Your task to perform on an android device: Go to Reddit.com Image 0: 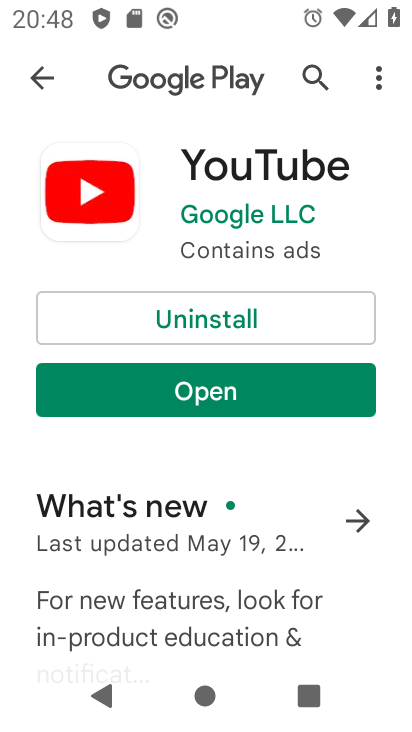
Step 0: press home button
Your task to perform on an android device: Go to Reddit.com Image 1: 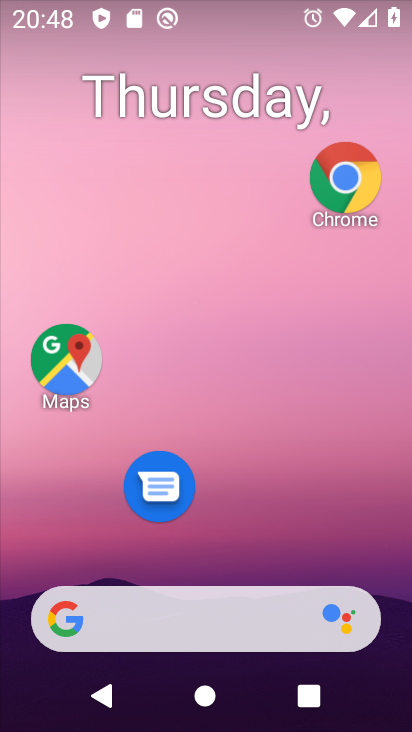
Step 1: drag from (226, 557) to (226, 46)
Your task to perform on an android device: Go to Reddit.com Image 2: 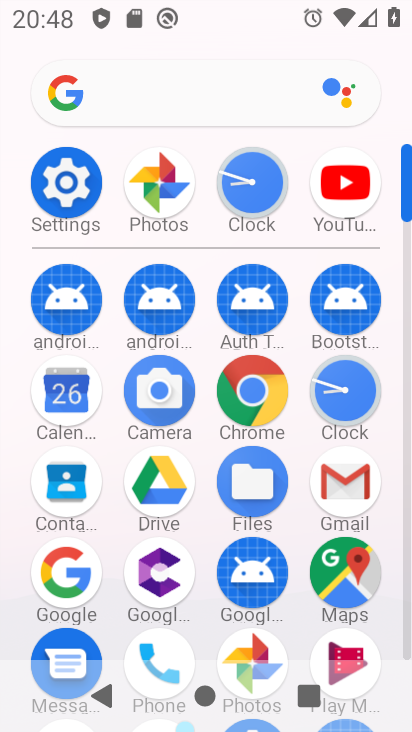
Step 2: click (269, 384)
Your task to perform on an android device: Go to Reddit.com Image 3: 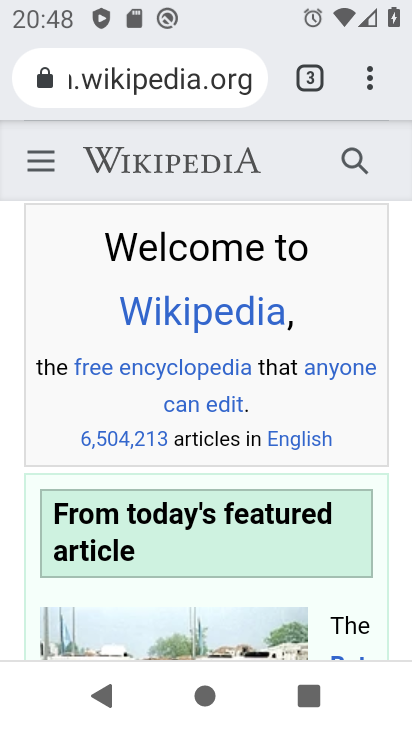
Step 3: click (309, 80)
Your task to perform on an android device: Go to Reddit.com Image 4: 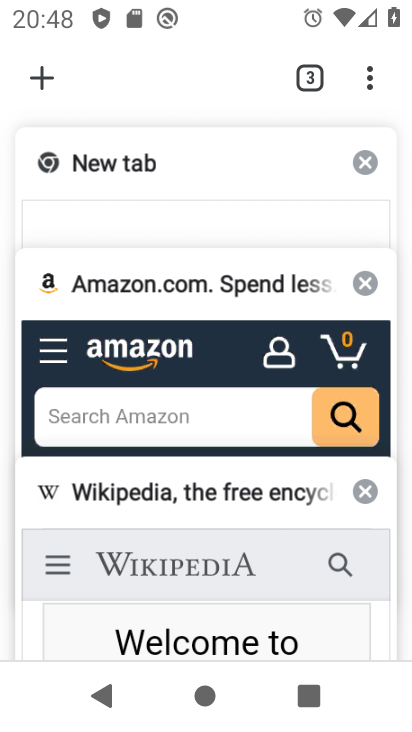
Step 4: click (44, 72)
Your task to perform on an android device: Go to Reddit.com Image 5: 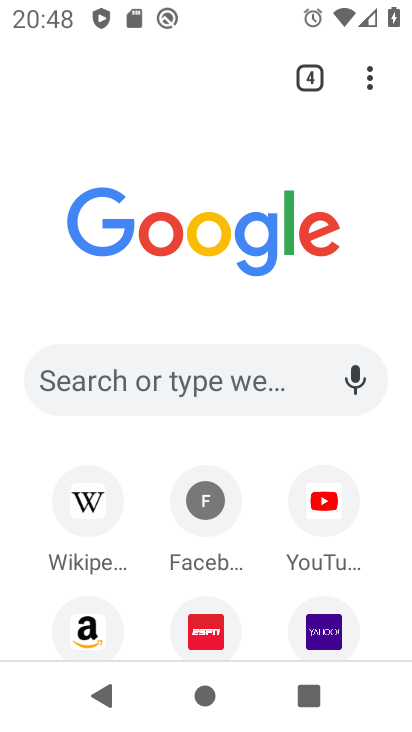
Step 5: click (152, 397)
Your task to perform on an android device: Go to Reddit.com Image 6: 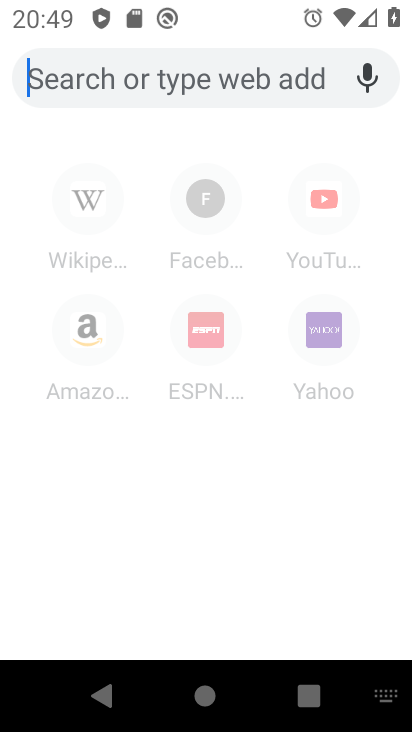
Step 6: type "reddit"
Your task to perform on an android device: Go to Reddit.com Image 7: 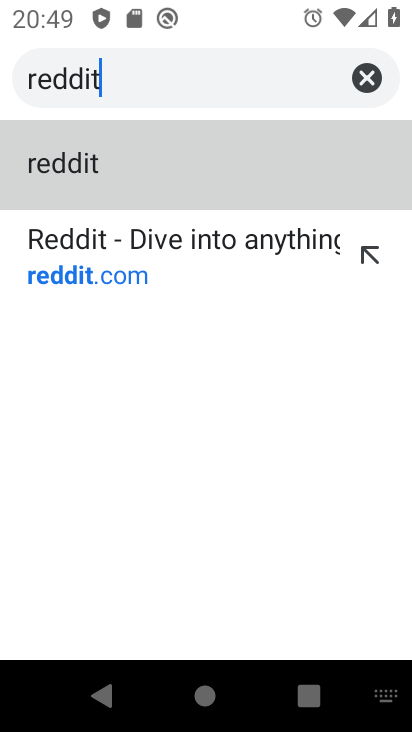
Step 7: click (165, 249)
Your task to perform on an android device: Go to Reddit.com Image 8: 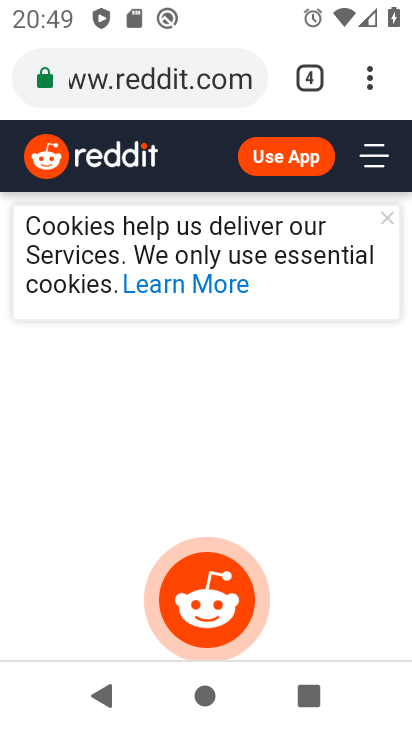
Step 8: task complete